Your task to perform on an android device: change the clock display to digital Image 0: 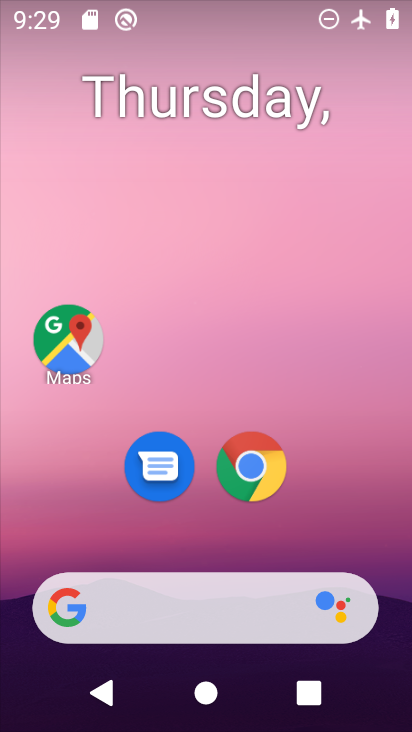
Step 0: drag from (207, 597) to (321, 168)
Your task to perform on an android device: change the clock display to digital Image 1: 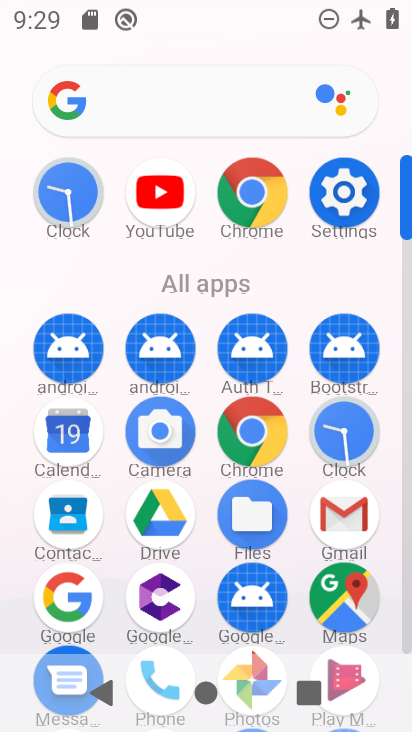
Step 1: click (338, 452)
Your task to perform on an android device: change the clock display to digital Image 2: 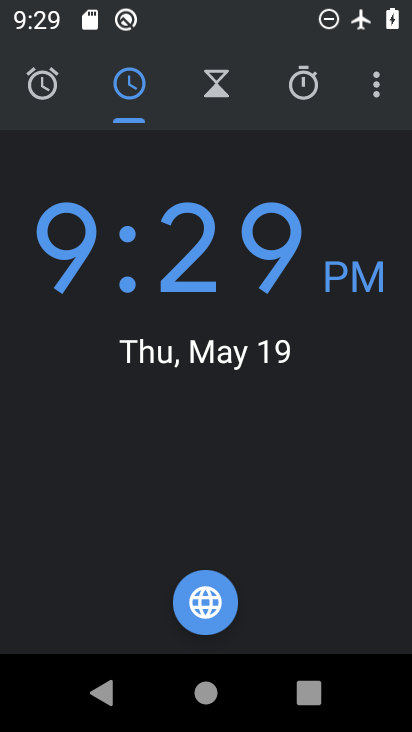
Step 2: click (369, 88)
Your task to perform on an android device: change the clock display to digital Image 3: 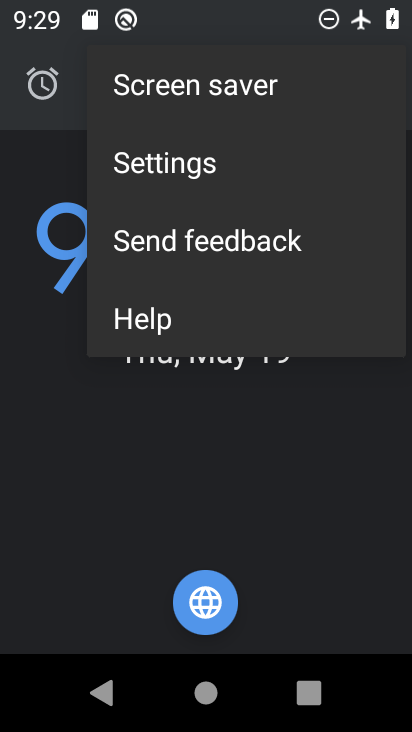
Step 3: click (302, 166)
Your task to perform on an android device: change the clock display to digital Image 4: 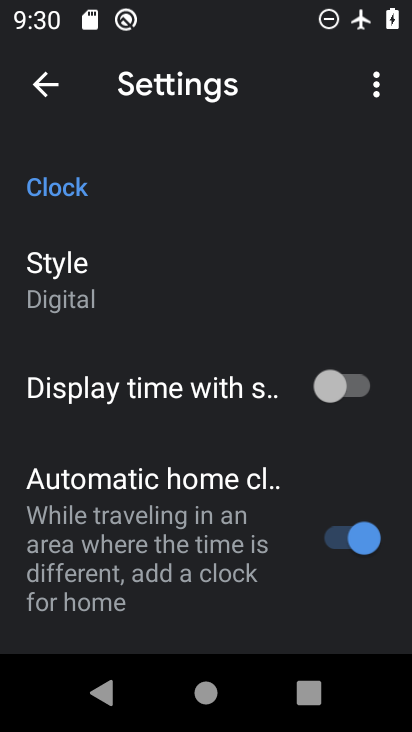
Step 4: task complete